Your task to perform on an android device: Add "acer predator" to the cart on target, then select checkout. Image 0: 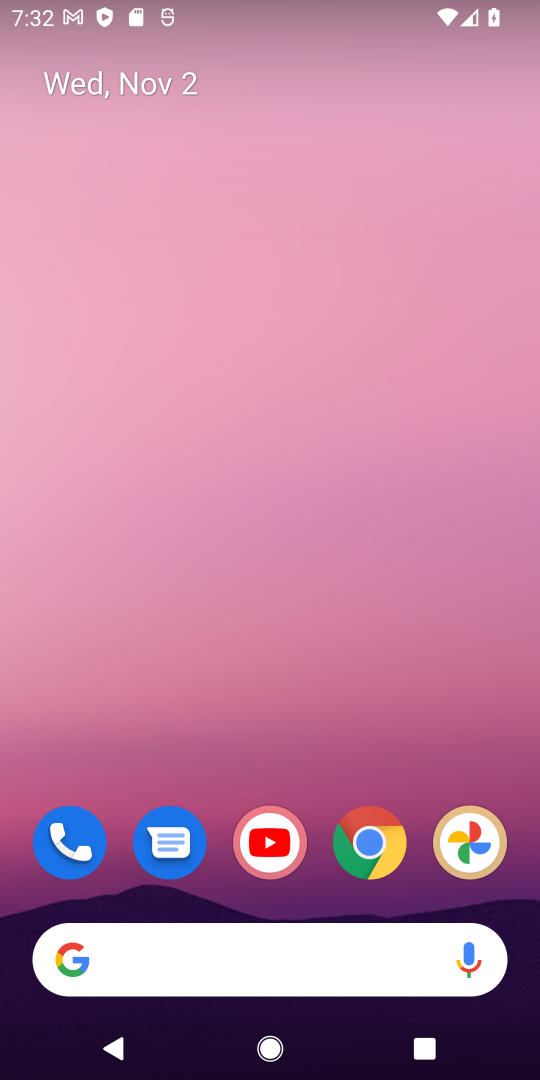
Step 0: drag from (404, 908) to (404, 28)
Your task to perform on an android device: Add "acer predator" to the cart on target, then select checkout. Image 1: 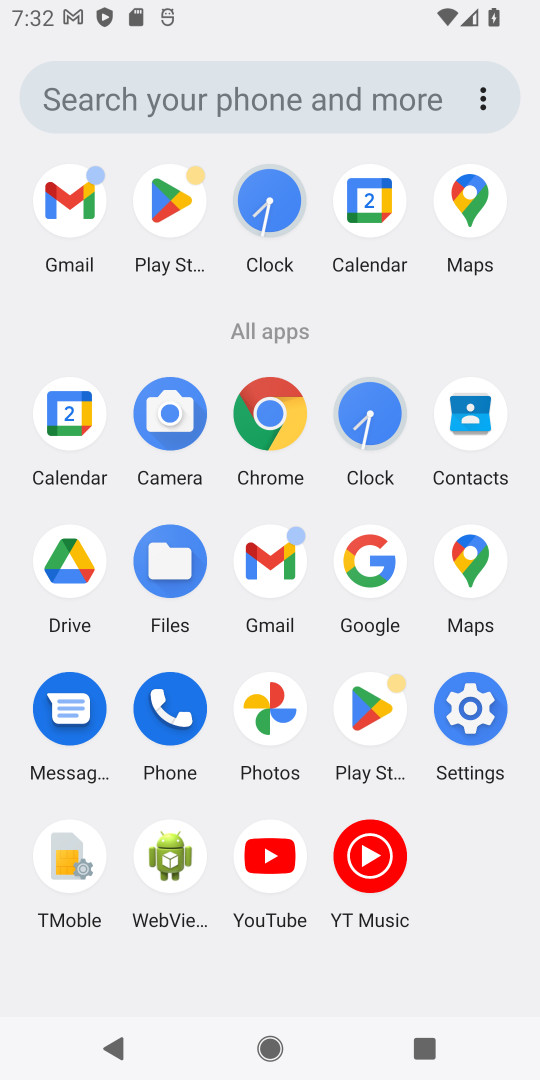
Step 1: click (381, 569)
Your task to perform on an android device: Add "acer predator" to the cart on target, then select checkout. Image 2: 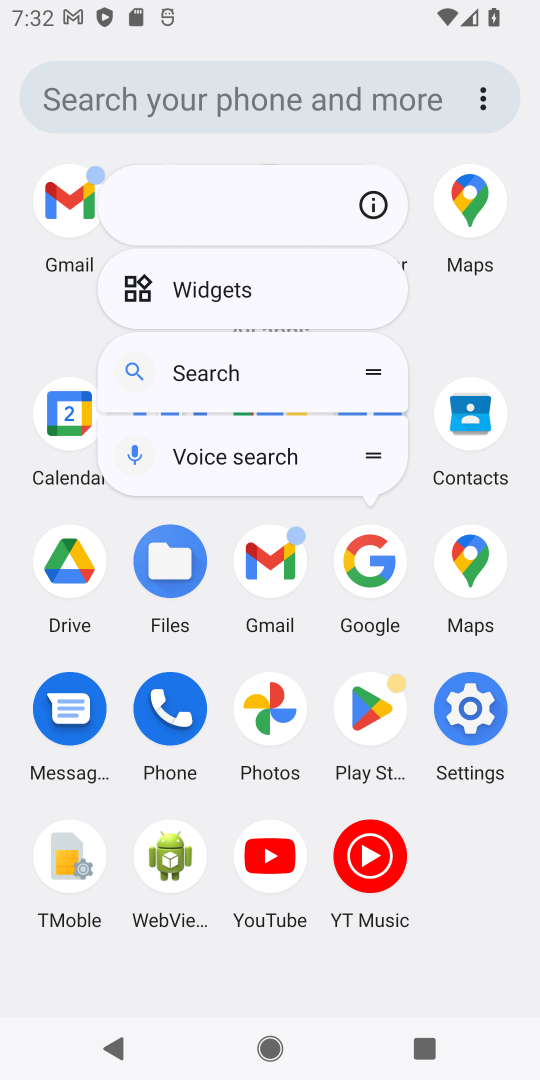
Step 2: click (350, 542)
Your task to perform on an android device: Add "acer predator" to the cart on target, then select checkout. Image 3: 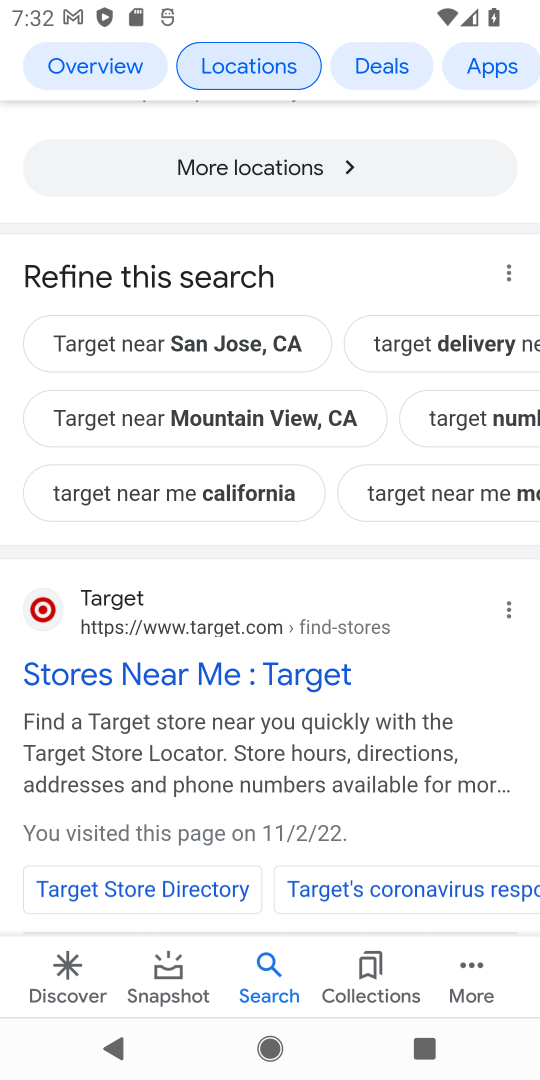
Step 3: drag from (232, 177) to (242, 891)
Your task to perform on an android device: Add "acer predator" to the cart on target, then select checkout. Image 4: 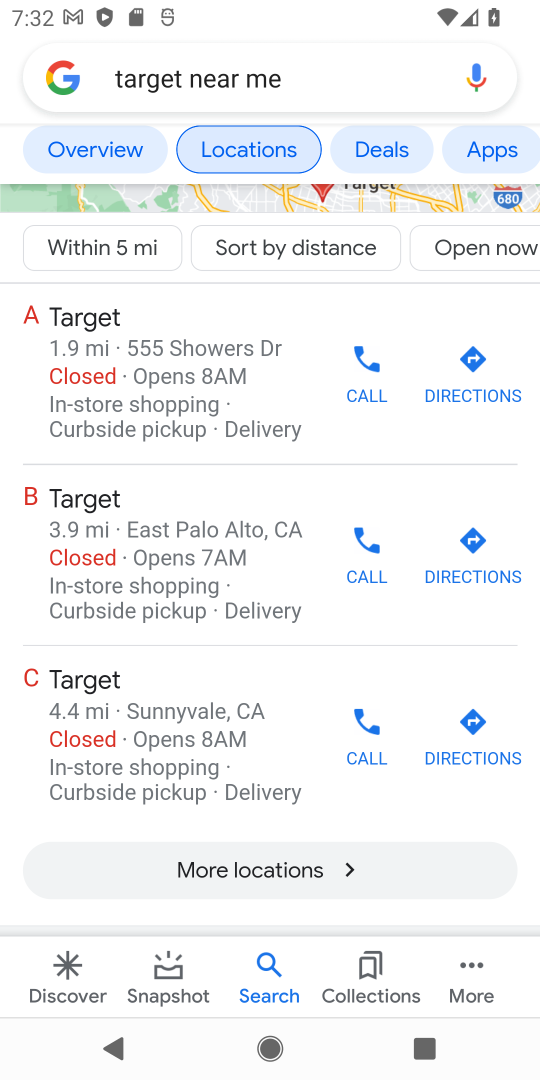
Step 4: drag from (274, 230) to (298, 932)
Your task to perform on an android device: Add "acer predator" to the cart on target, then select checkout. Image 5: 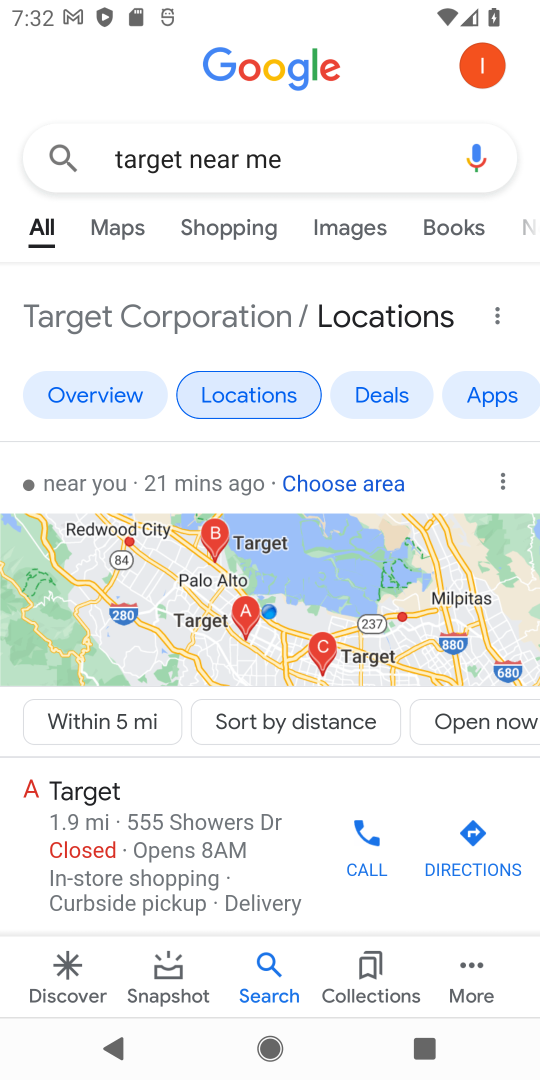
Step 5: drag from (283, 253) to (256, 837)
Your task to perform on an android device: Add "acer predator" to the cart on target, then select checkout. Image 6: 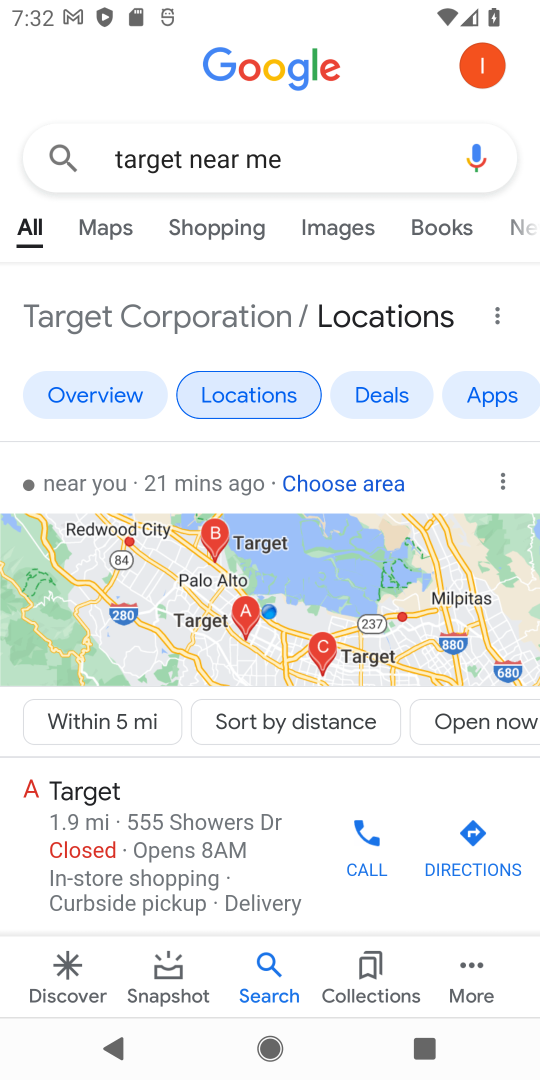
Step 6: click (217, 155)
Your task to perform on an android device: Add "acer predator" to the cart on target, then select checkout. Image 7: 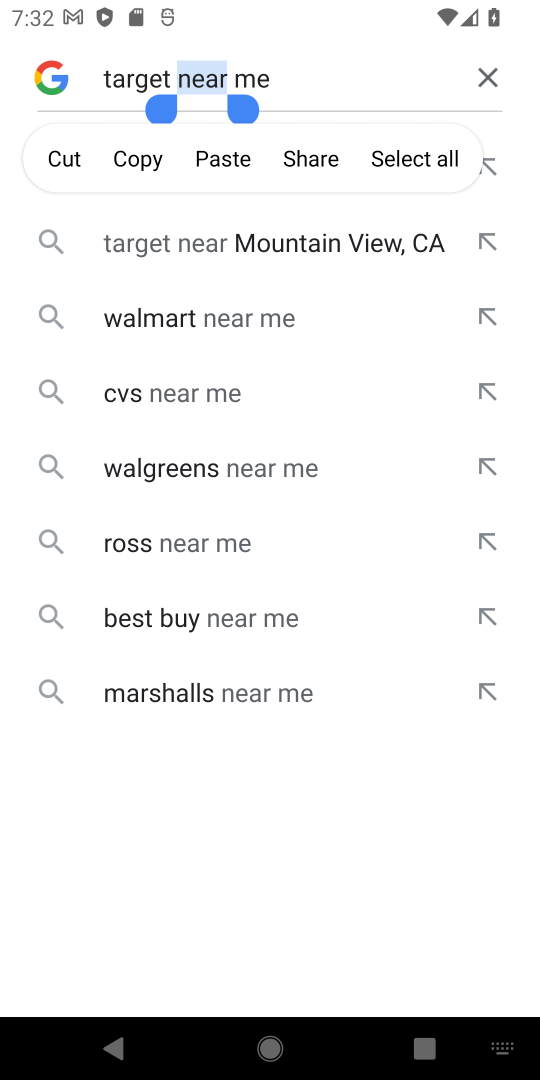
Step 7: click (497, 79)
Your task to perform on an android device: Add "acer predator" to the cart on target, then select checkout. Image 8: 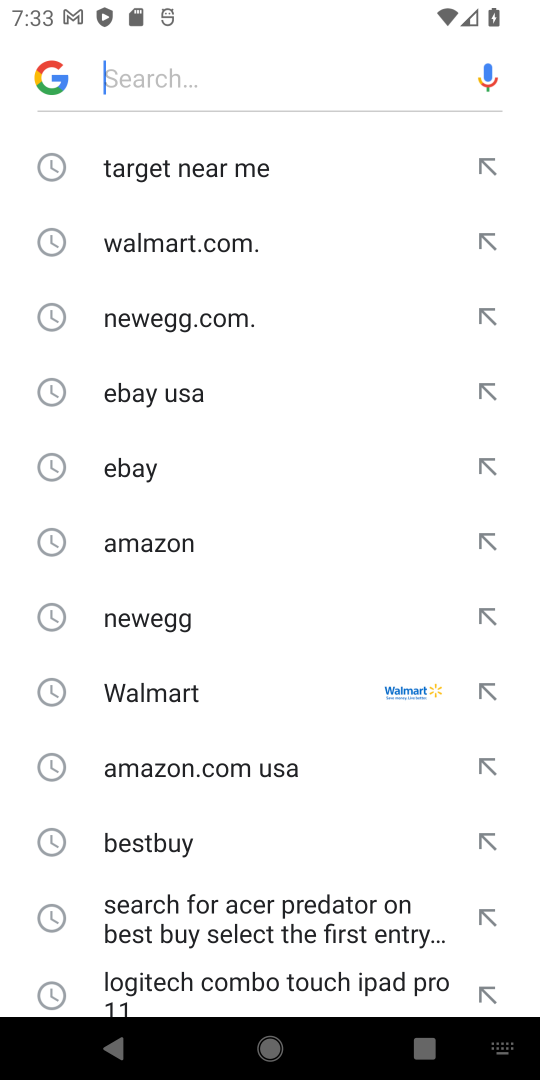
Step 8: click (200, 164)
Your task to perform on an android device: Add "acer predator" to the cart on target, then select checkout. Image 9: 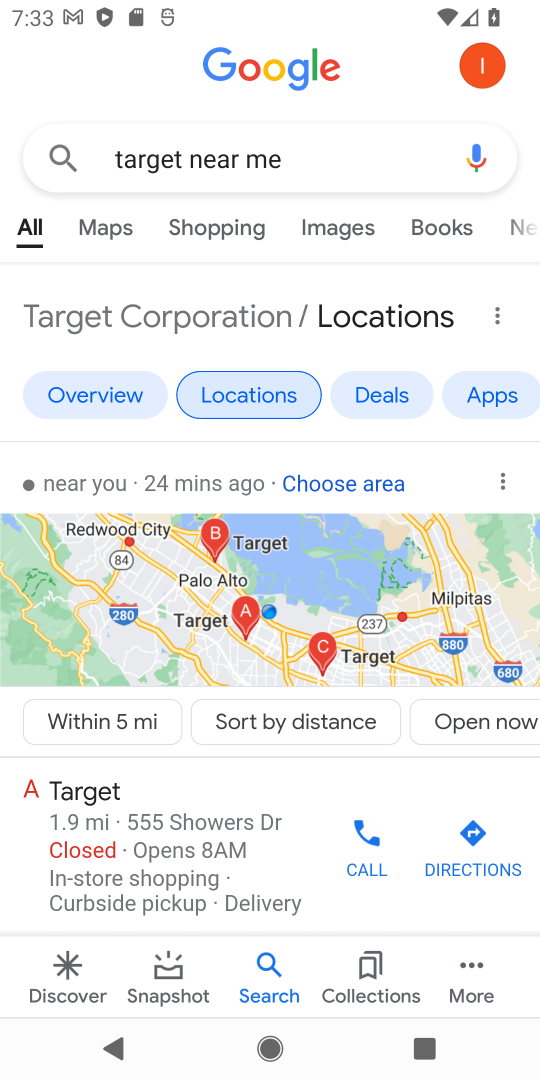
Step 9: drag from (68, 820) to (190, 211)
Your task to perform on an android device: Add "acer predator" to the cart on target, then select checkout. Image 10: 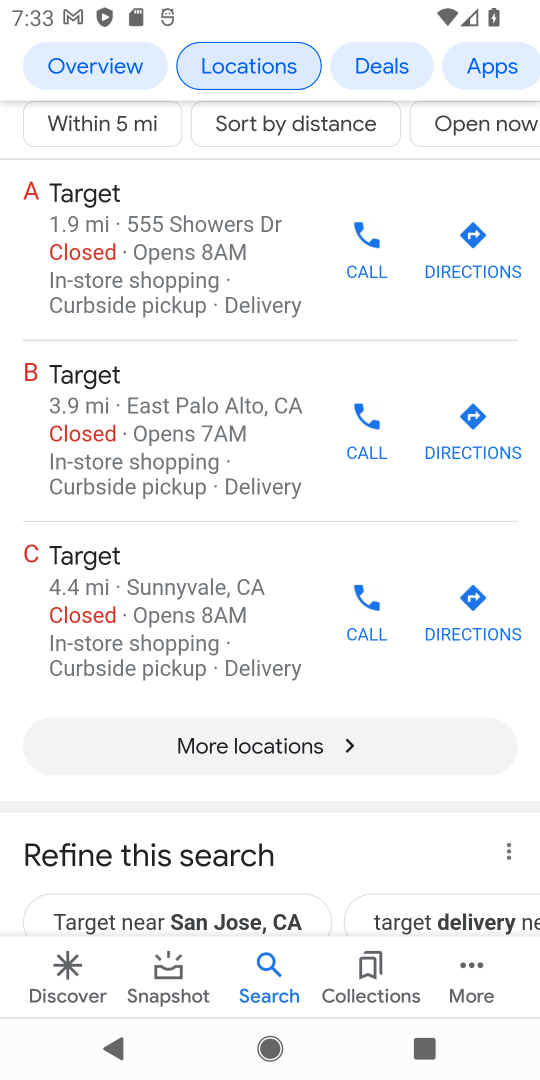
Step 10: drag from (33, 904) to (132, 241)
Your task to perform on an android device: Add "acer predator" to the cart on target, then select checkout. Image 11: 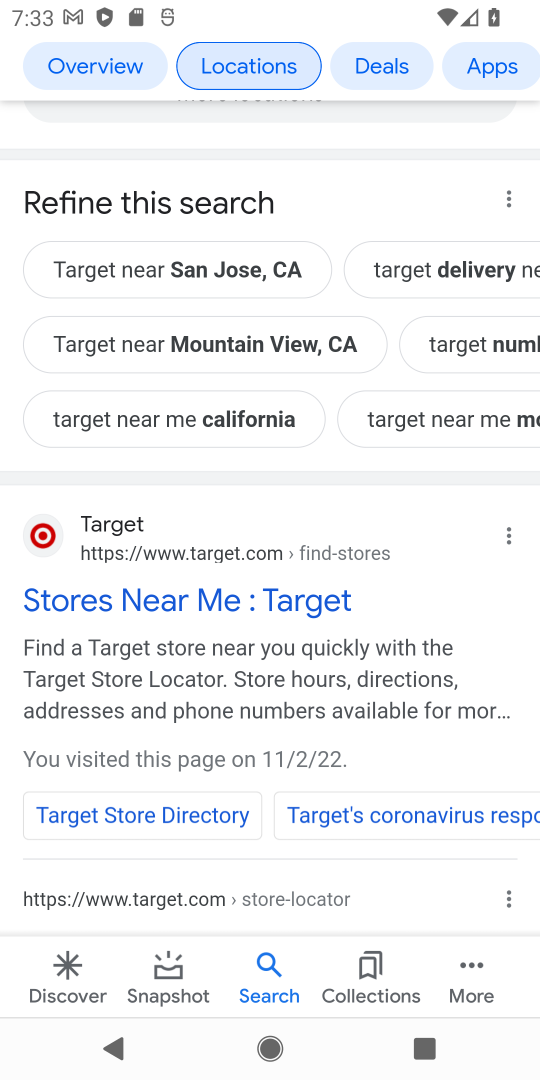
Step 11: click (31, 537)
Your task to perform on an android device: Add "acer predator" to the cart on target, then select checkout. Image 12: 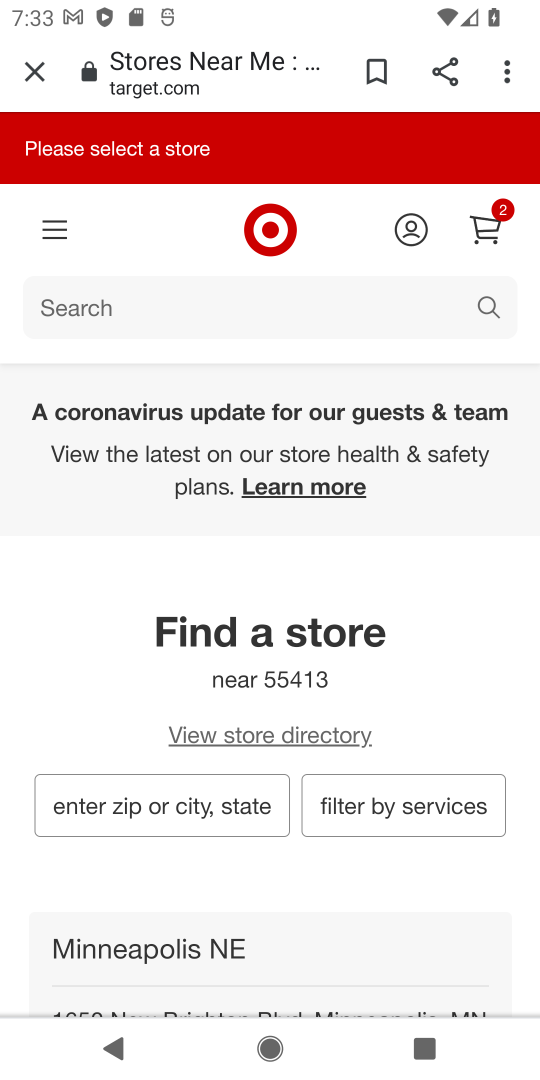
Step 12: click (268, 299)
Your task to perform on an android device: Add "acer predator" to the cart on target, then select checkout. Image 13: 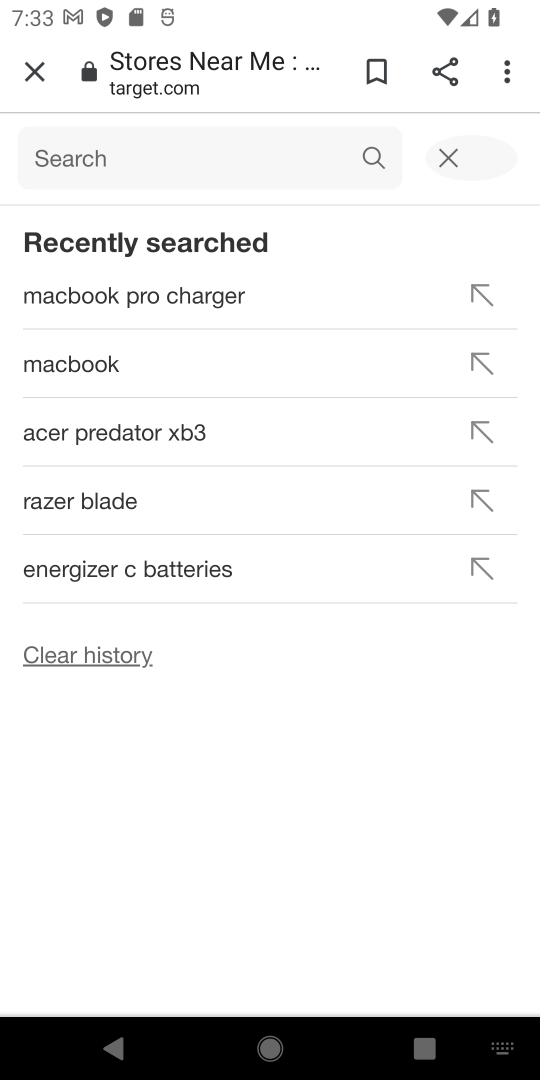
Step 13: click (173, 161)
Your task to perform on an android device: Add "acer predator" to the cart on target, then select checkout. Image 14: 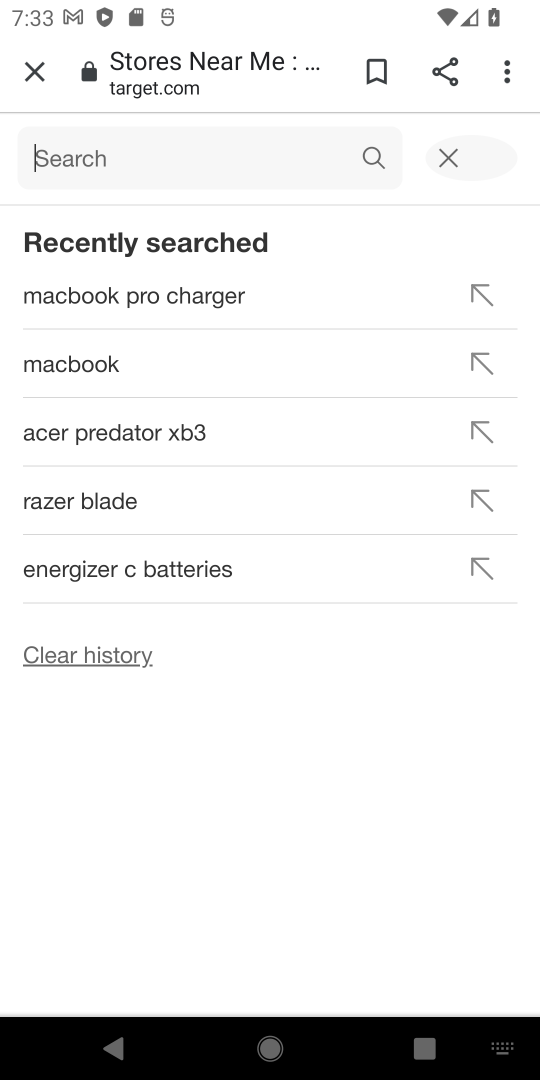
Step 14: click (176, 151)
Your task to perform on an android device: Add "acer predator" to the cart on target, then select checkout. Image 15: 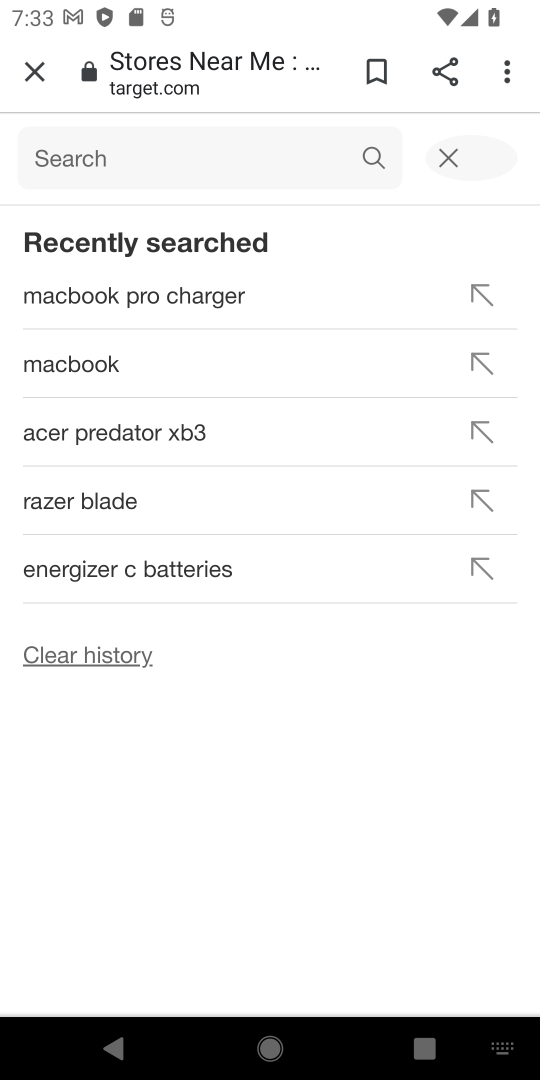
Step 15: type "acer predator" "
Your task to perform on an android device: Add "acer predator" to the cart on target, then select checkout. Image 16: 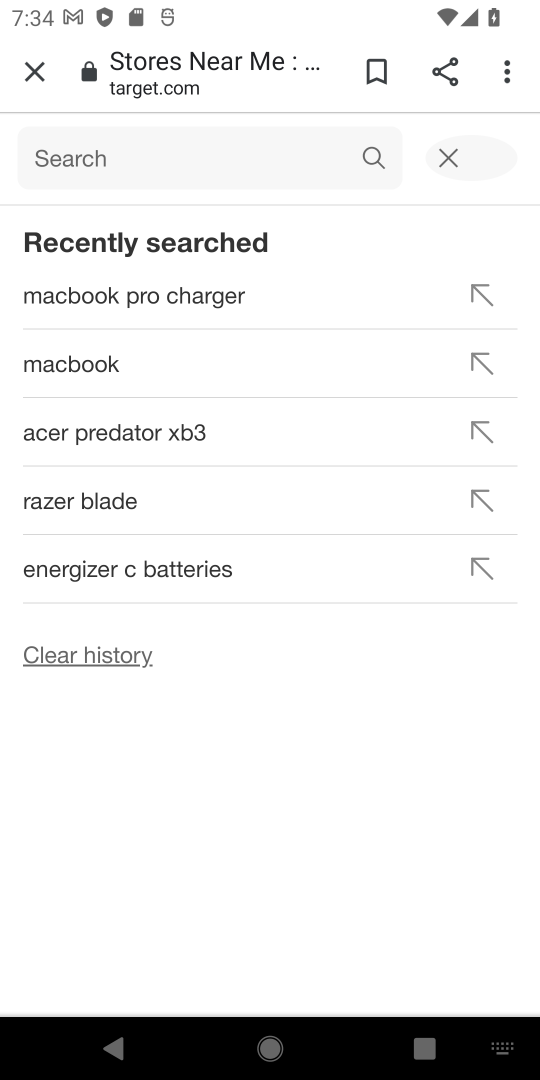
Step 16: click (269, 155)
Your task to perform on an android device: Add "acer predator" to the cart on target, then select checkout. Image 17: 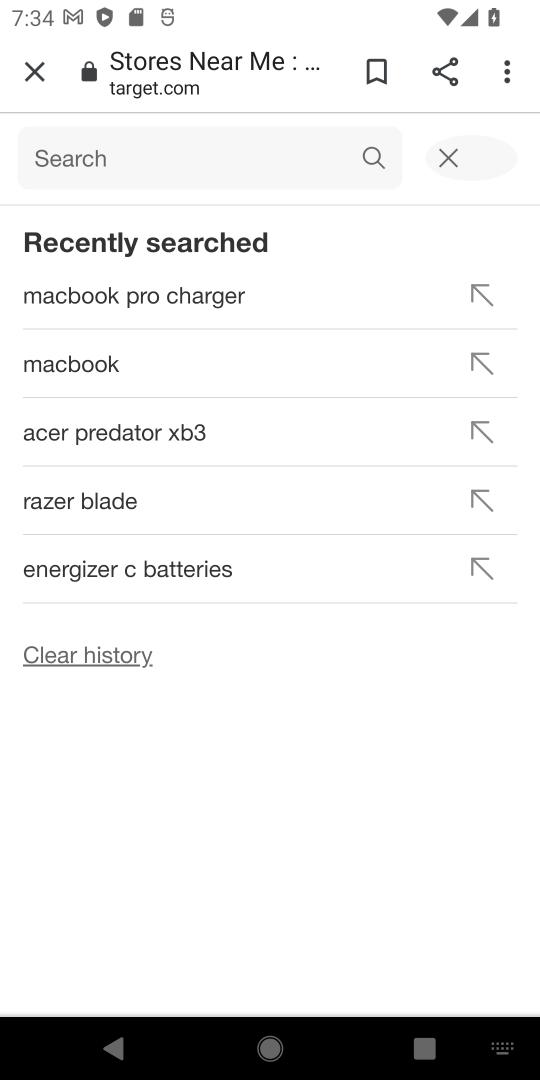
Step 17: type "acer predator "
Your task to perform on an android device: Add "acer predator" to the cart on target, then select checkout. Image 18: 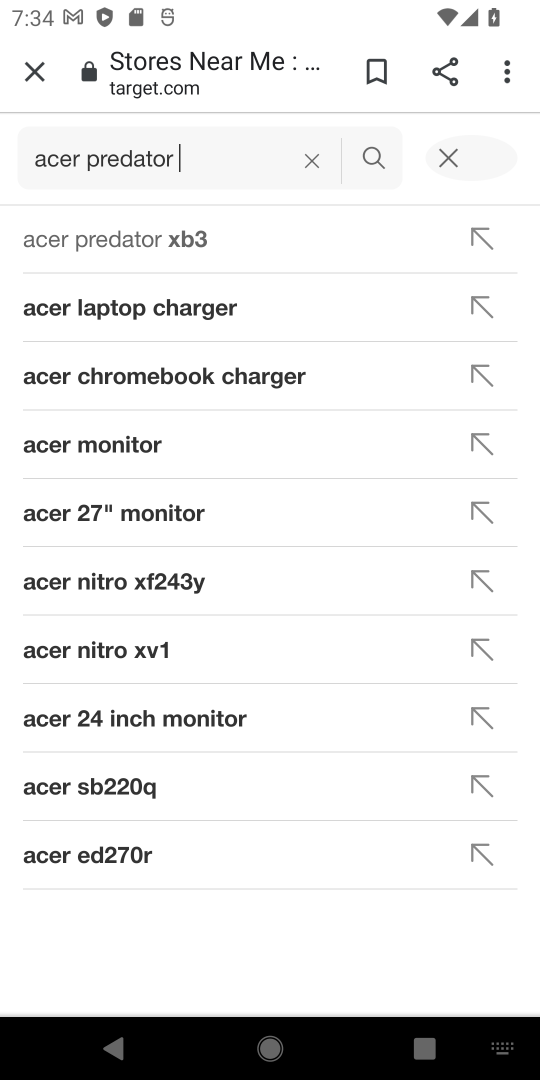
Step 18: click (242, 236)
Your task to perform on an android device: Add "acer predator" to the cart on target, then select checkout. Image 19: 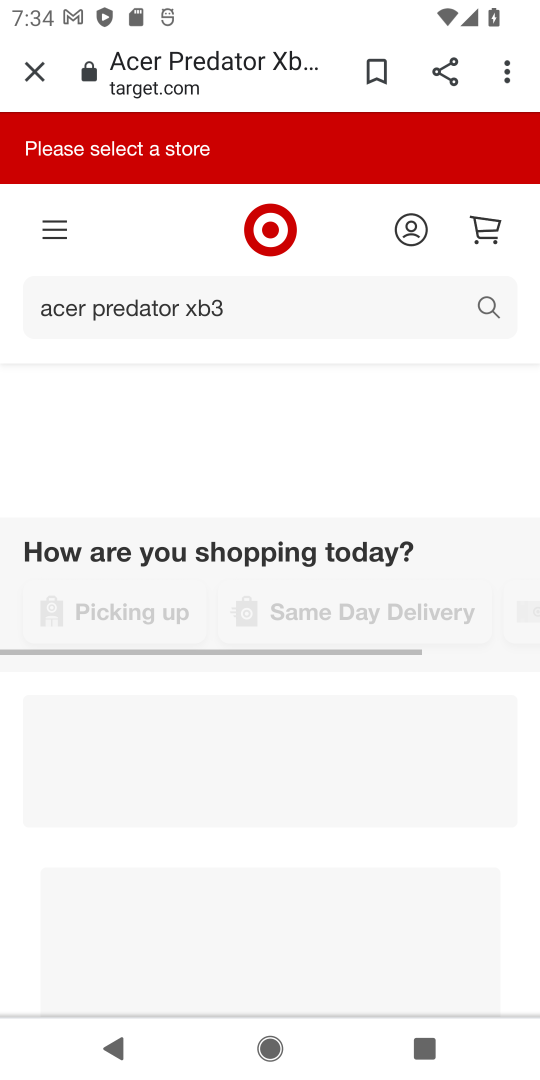
Step 19: drag from (310, 929) to (384, 236)
Your task to perform on an android device: Add "acer predator" to the cart on target, then select checkout. Image 20: 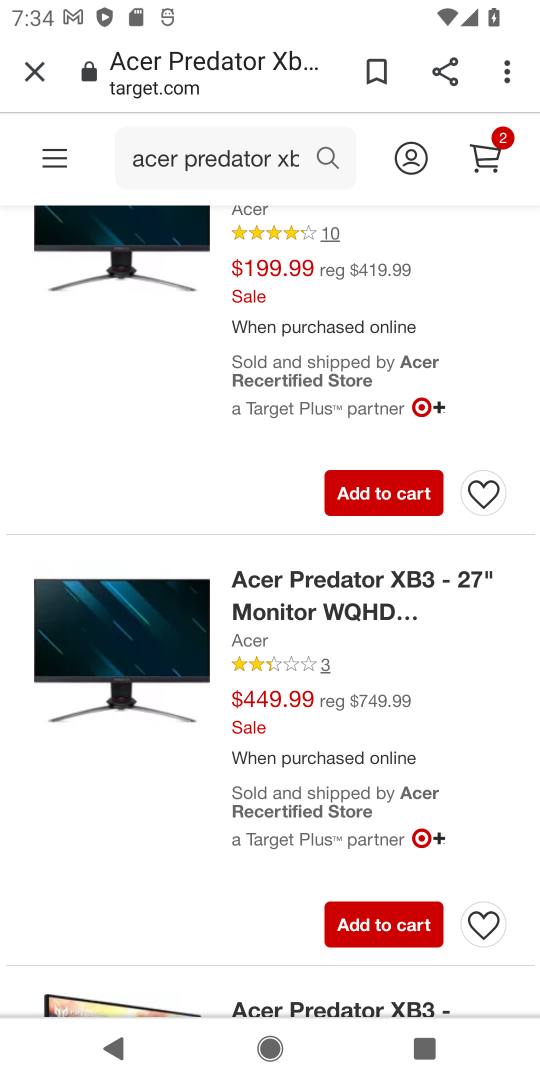
Step 20: click (337, 491)
Your task to perform on an android device: Add "acer predator" to the cart on target, then select checkout. Image 21: 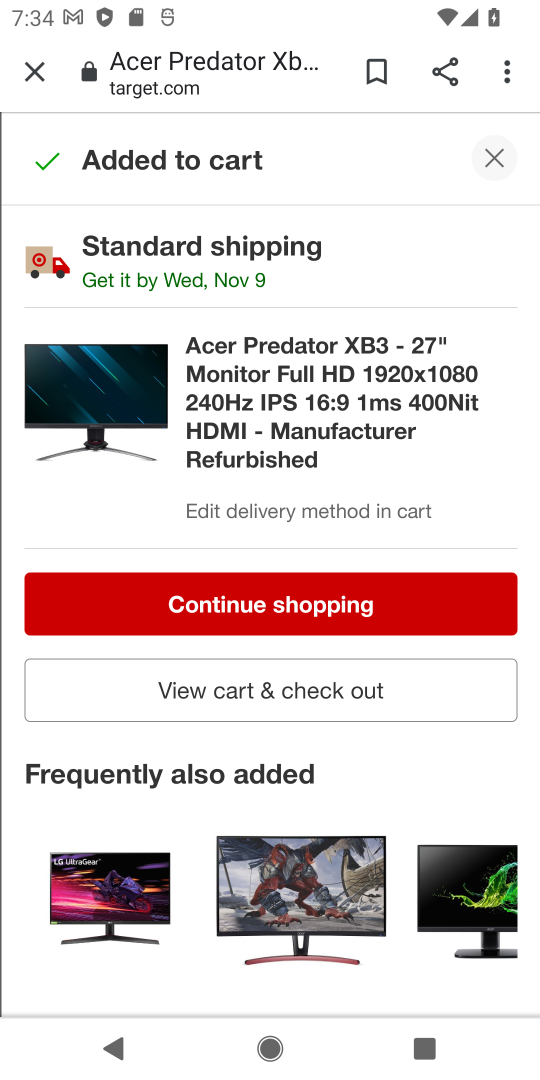
Step 21: task complete